Your task to perform on an android device: Go to location settings Image 0: 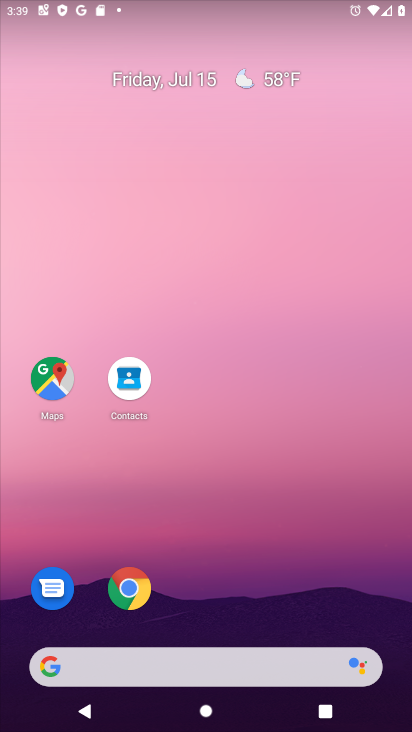
Step 0: drag from (279, 614) to (270, 106)
Your task to perform on an android device: Go to location settings Image 1: 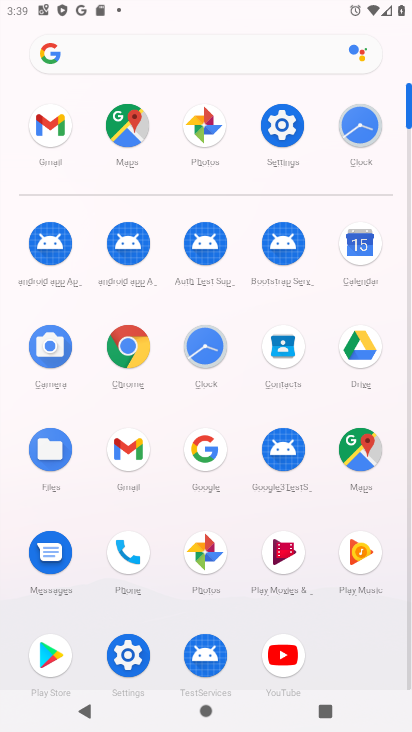
Step 1: click (271, 134)
Your task to perform on an android device: Go to location settings Image 2: 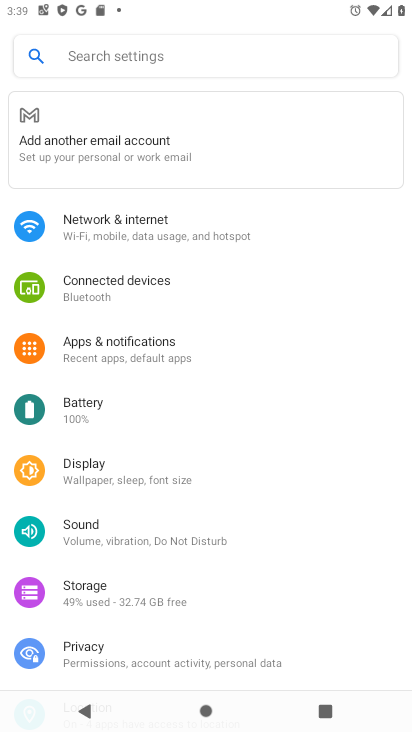
Step 2: drag from (171, 659) to (178, 488)
Your task to perform on an android device: Go to location settings Image 3: 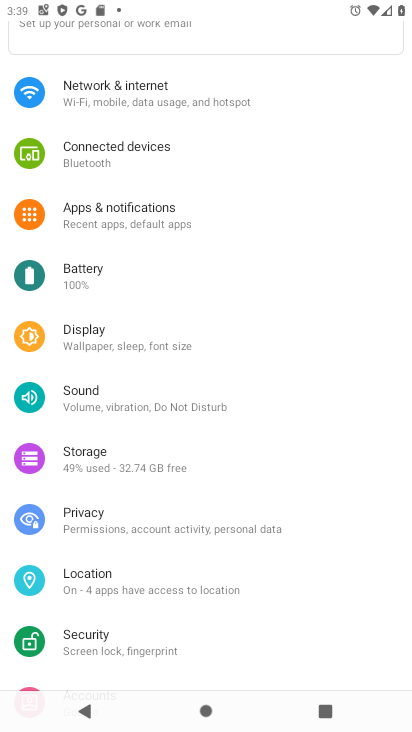
Step 3: click (144, 557)
Your task to perform on an android device: Go to location settings Image 4: 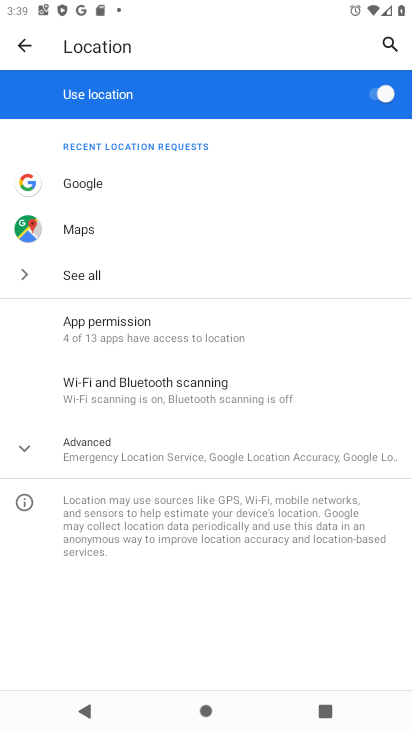
Step 4: click (162, 443)
Your task to perform on an android device: Go to location settings Image 5: 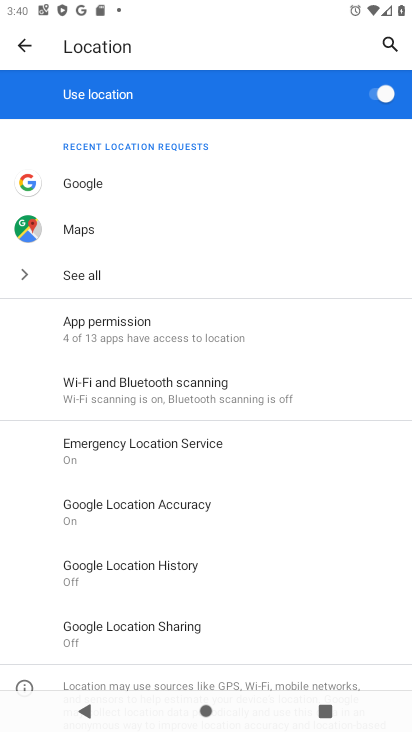
Step 5: task complete